Your task to perform on an android device: Is it going to rain tomorrow? Image 0: 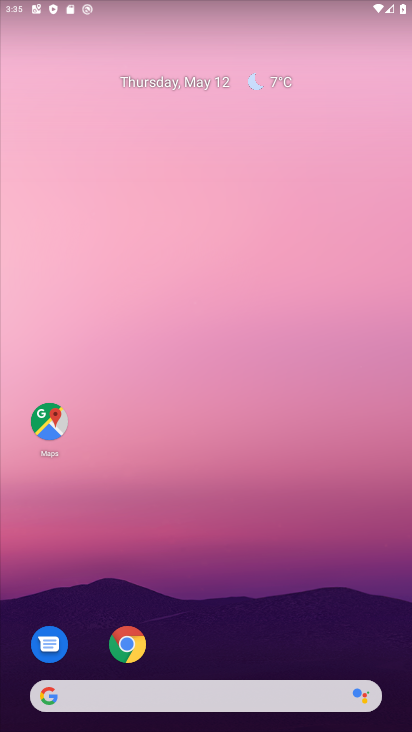
Step 0: press home button
Your task to perform on an android device: Is it going to rain tomorrow? Image 1: 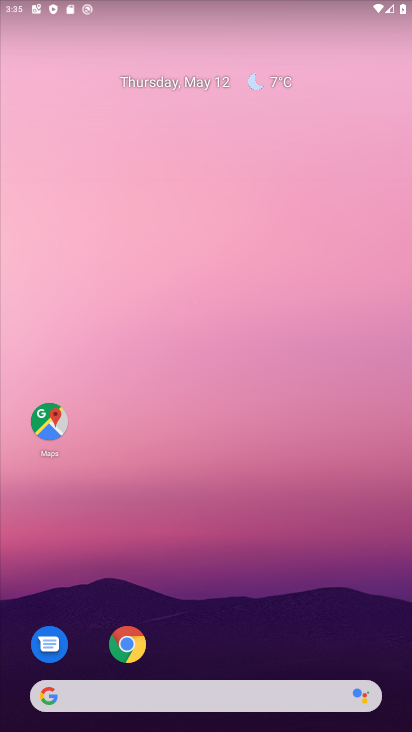
Step 1: click (275, 82)
Your task to perform on an android device: Is it going to rain tomorrow? Image 2: 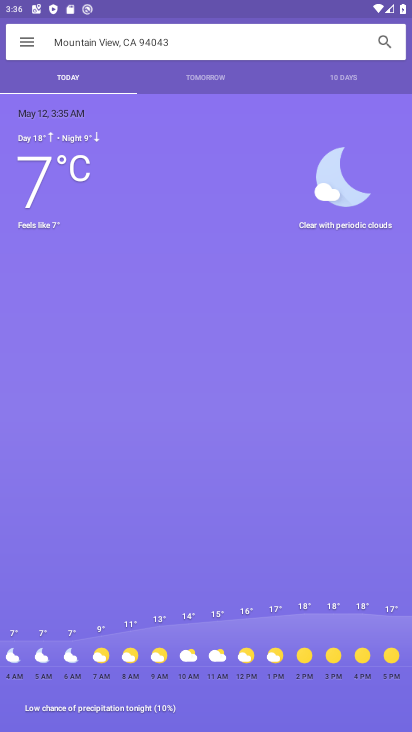
Step 2: drag from (314, 654) to (167, 666)
Your task to perform on an android device: Is it going to rain tomorrow? Image 3: 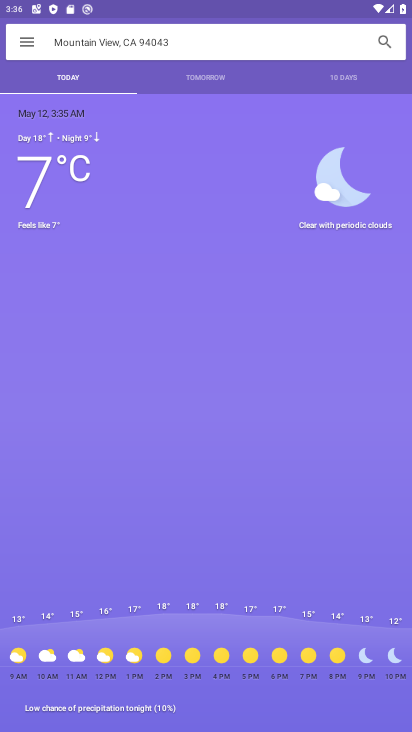
Step 3: drag from (380, 663) to (270, 661)
Your task to perform on an android device: Is it going to rain tomorrow? Image 4: 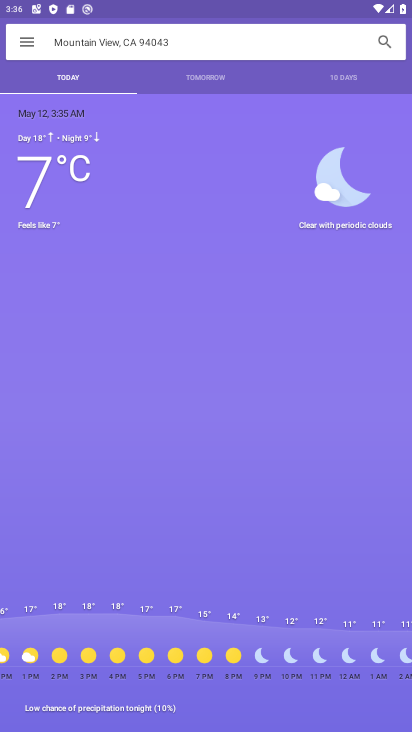
Step 4: click (208, 83)
Your task to perform on an android device: Is it going to rain tomorrow? Image 5: 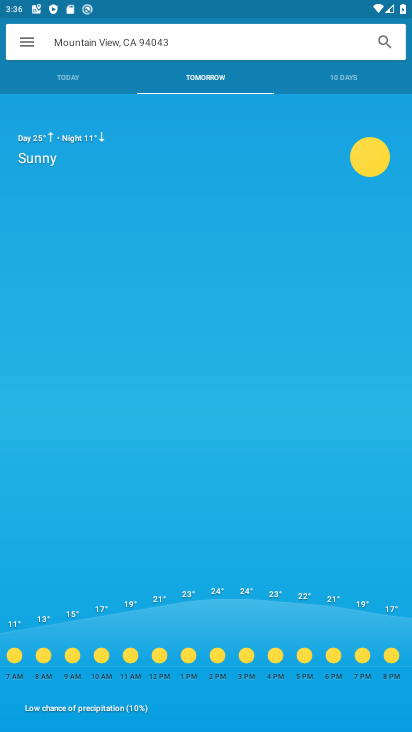
Step 5: task complete